Your task to perform on an android device: turn on the 12-hour format for clock Image 0: 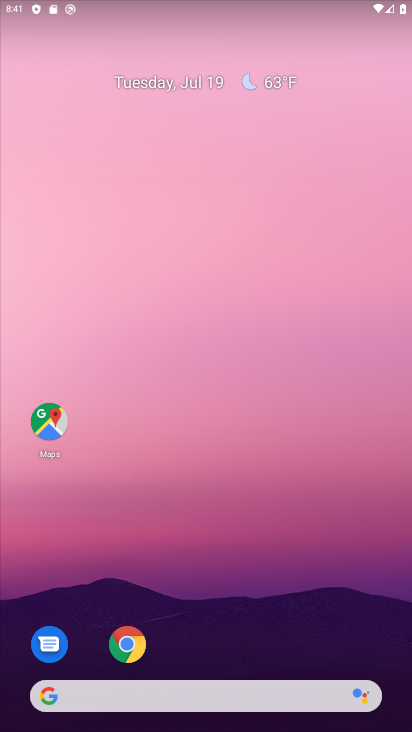
Step 0: drag from (222, 540) to (183, 324)
Your task to perform on an android device: turn on the 12-hour format for clock Image 1: 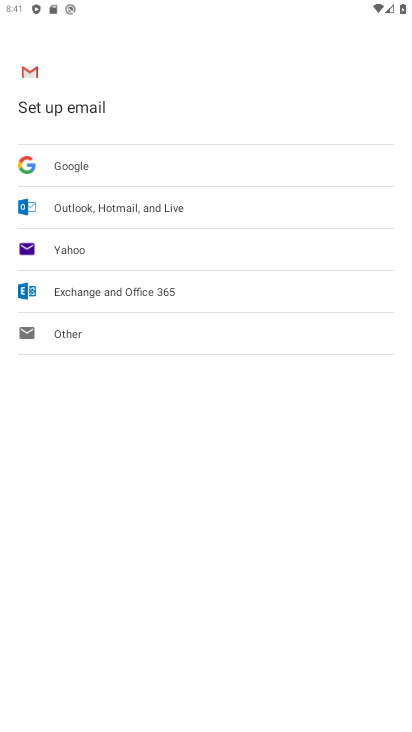
Step 1: press back button
Your task to perform on an android device: turn on the 12-hour format for clock Image 2: 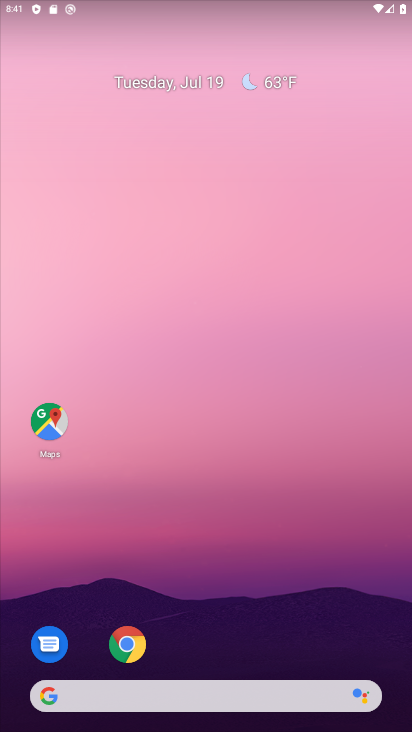
Step 2: drag from (215, 564) to (193, 191)
Your task to perform on an android device: turn on the 12-hour format for clock Image 3: 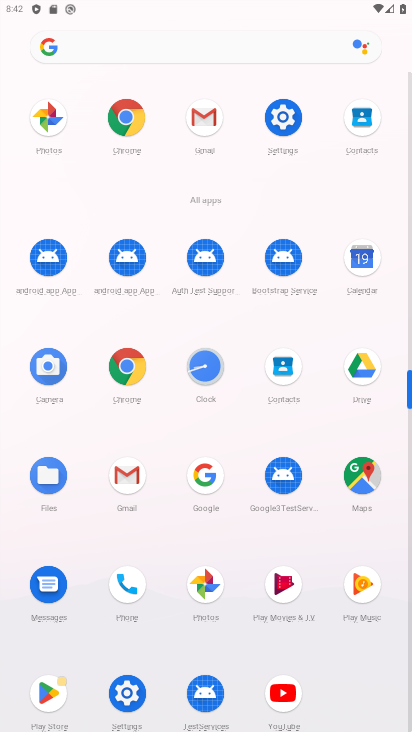
Step 3: click (201, 359)
Your task to perform on an android device: turn on the 12-hour format for clock Image 4: 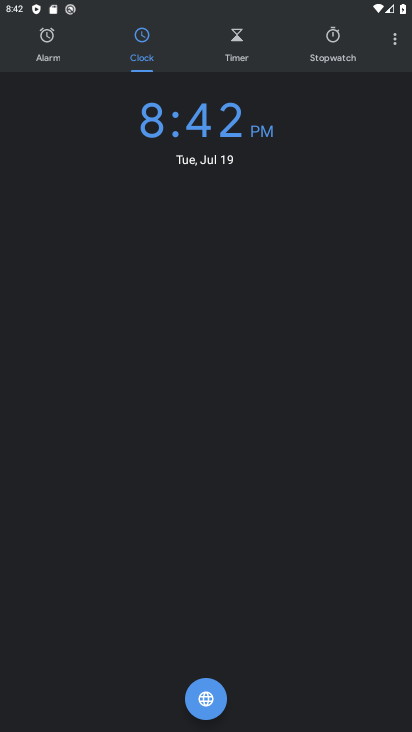
Step 4: click (393, 39)
Your task to perform on an android device: turn on the 12-hour format for clock Image 5: 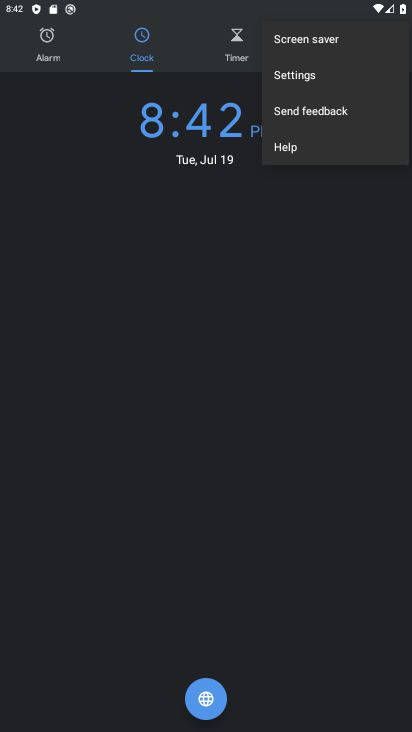
Step 5: click (294, 75)
Your task to perform on an android device: turn on the 12-hour format for clock Image 6: 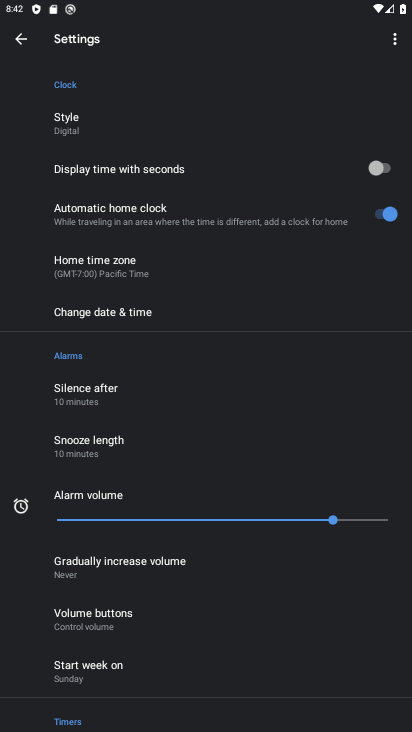
Step 6: click (87, 313)
Your task to perform on an android device: turn on the 12-hour format for clock Image 7: 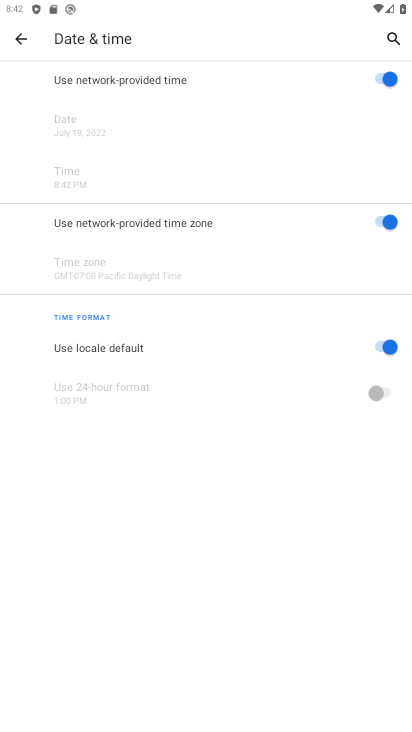
Step 7: click (392, 345)
Your task to perform on an android device: turn on the 12-hour format for clock Image 8: 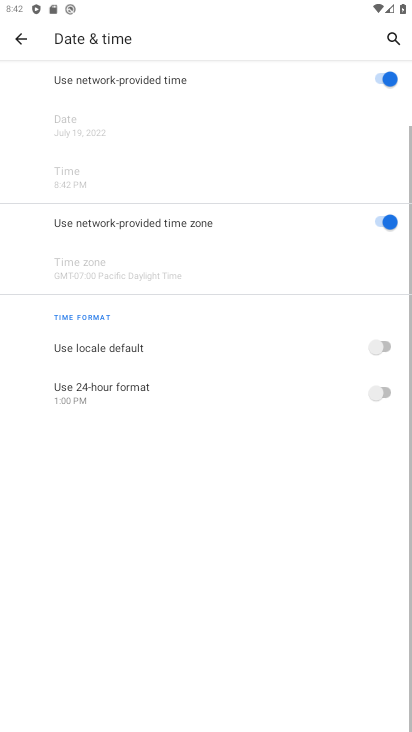
Step 8: click (380, 345)
Your task to perform on an android device: turn on the 12-hour format for clock Image 9: 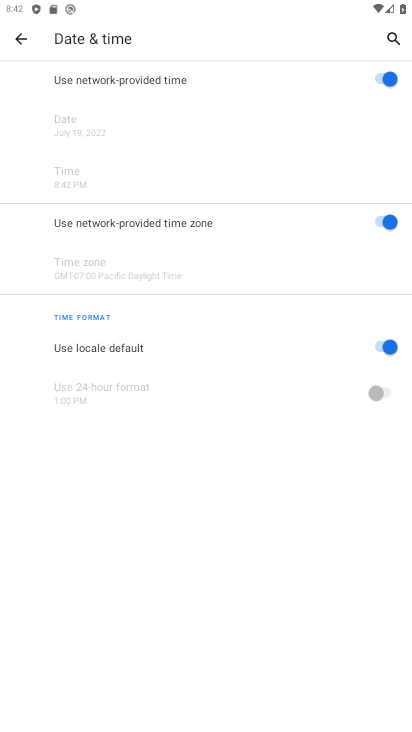
Step 9: task complete